Your task to perform on an android device: Open Youtube and go to the subscriptions tab Image 0: 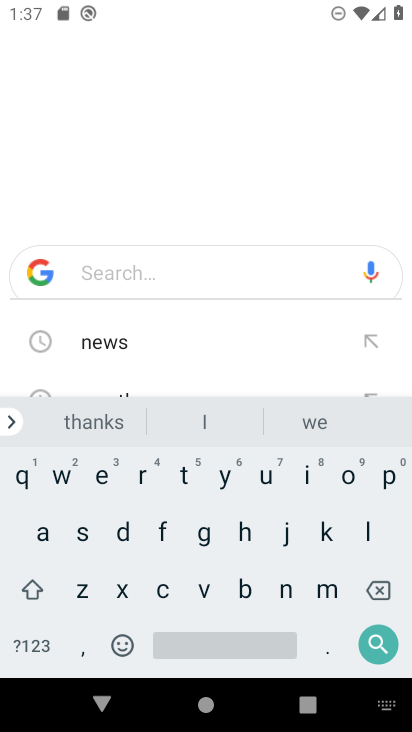
Step 0: press home button
Your task to perform on an android device: Open Youtube and go to the subscriptions tab Image 1: 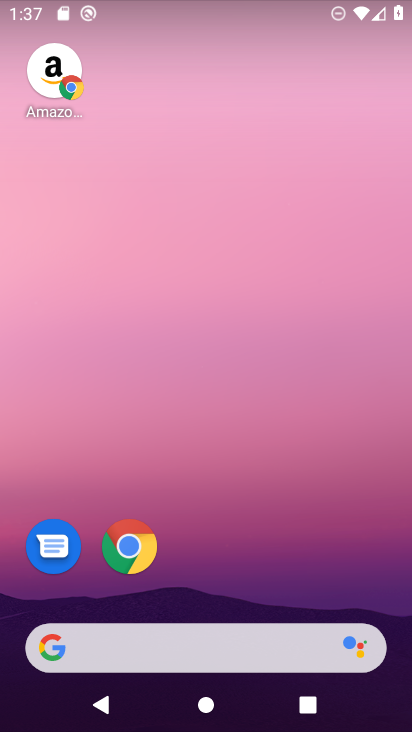
Step 1: drag from (272, 664) to (273, 240)
Your task to perform on an android device: Open Youtube and go to the subscriptions tab Image 2: 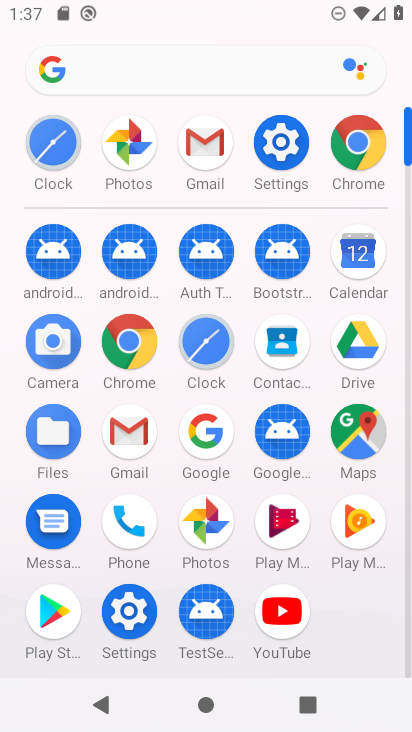
Step 2: click (283, 615)
Your task to perform on an android device: Open Youtube and go to the subscriptions tab Image 3: 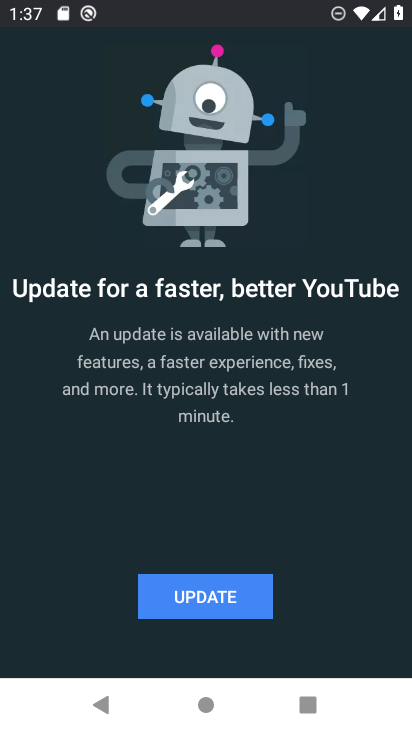
Step 3: click (217, 605)
Your task to perform on an android device: Open Youtube and go to the subscriptions tab Image 4: 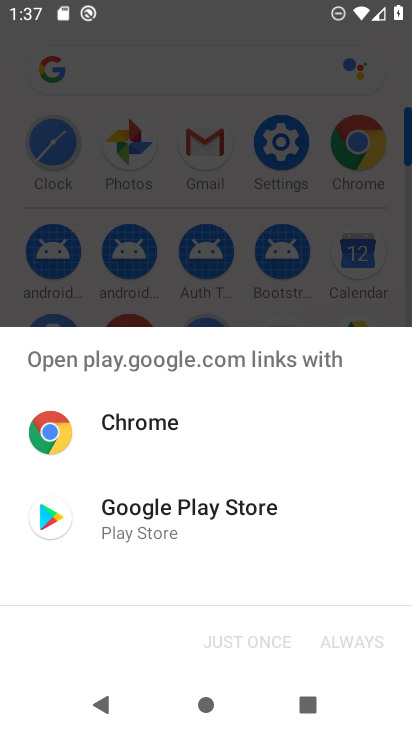
Step 4: click (153, 535)
Your task to perform on an android device: Open Youtube and go to the subscriptions tab Image 5: 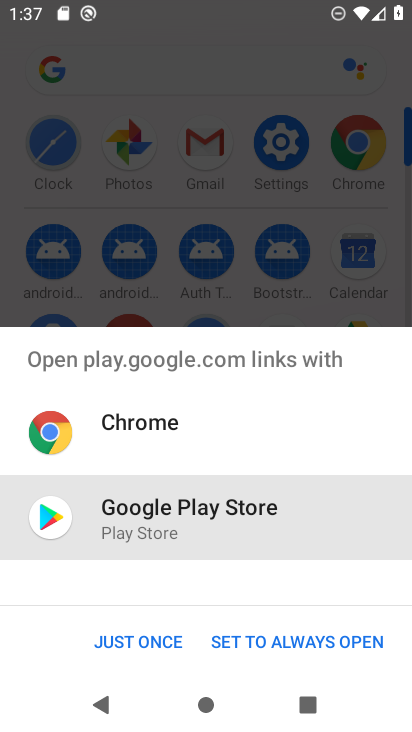
Step 5: click (240, 647)
Your task to perform on an android device: Open Youtube and go to the subscriptions tab Image 6: 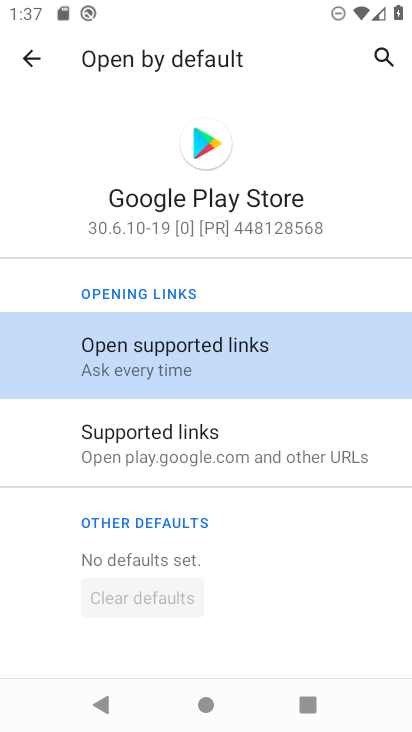
Step 6: press back button
Your task to perform on an android device: Open Youtube and go to the subscriptions tab Image 7: 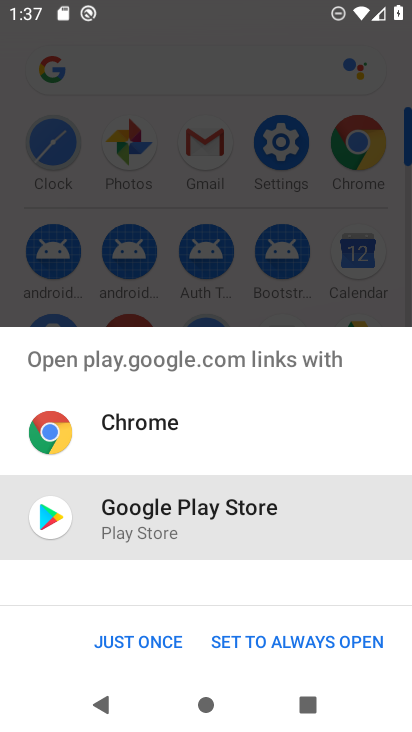
Step 7: click (140, 643)
Your task to perform on an android device: Open Youtube and go to the subscriptions tab Image 8: 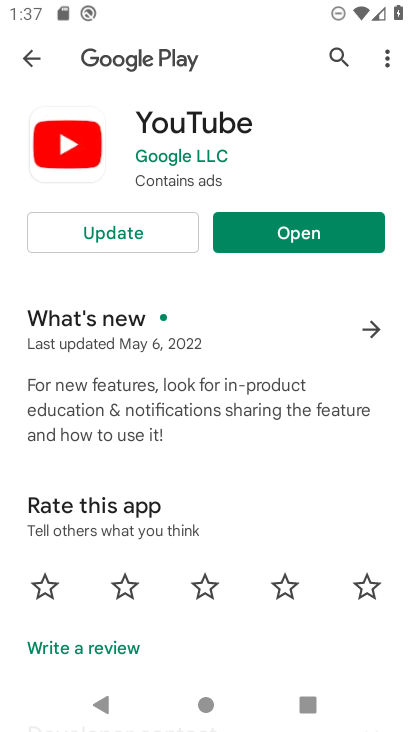
Step 8: click (123, 226)
Your task to perform on an android device: Open Youtube and go to the subscriptions tab Image 9: 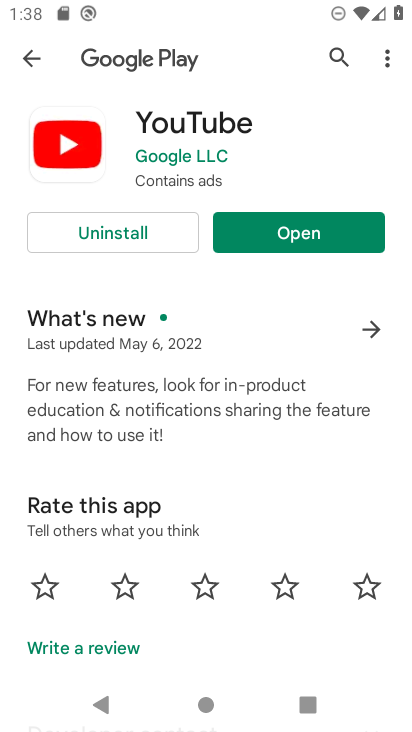
Step 9: click (313, 228)
Your task to perform on an android device: Open Youtube and go to the subscriptions tab Image 10: 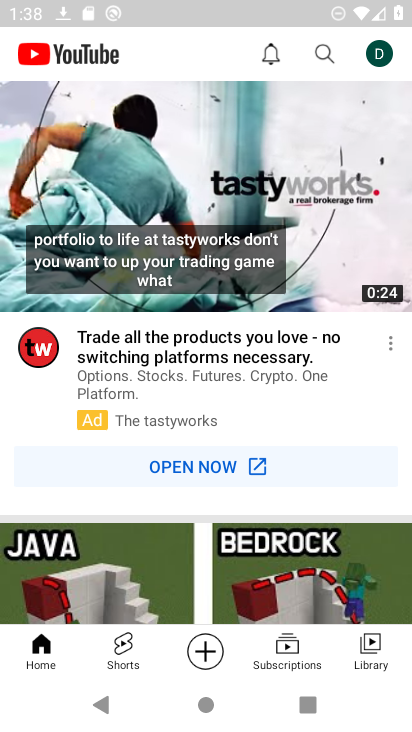
Step 10: click (295, 652)
Your task to perform on an android device: Open Youtube and go to the subscriptions tab Image 11: 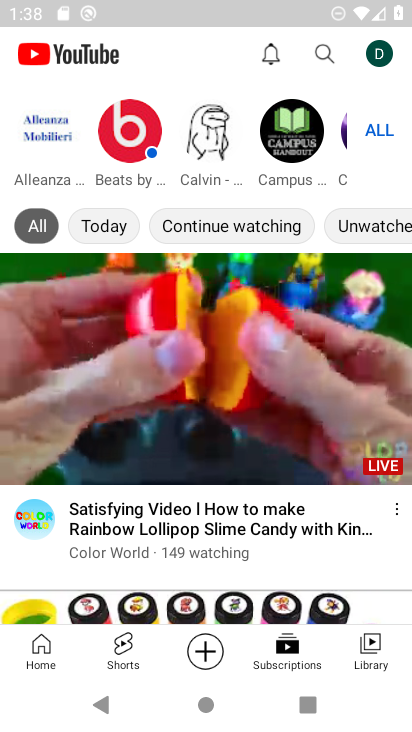
Step 11: task complete